Your task to perform on an android device: Install the Amazon app Image 0: 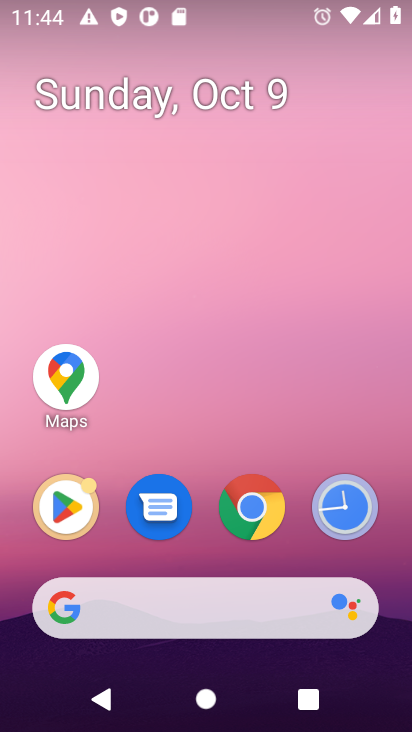
Step 0: press home button
Your task to perform on an android device: Install the Amazon app Image 1: 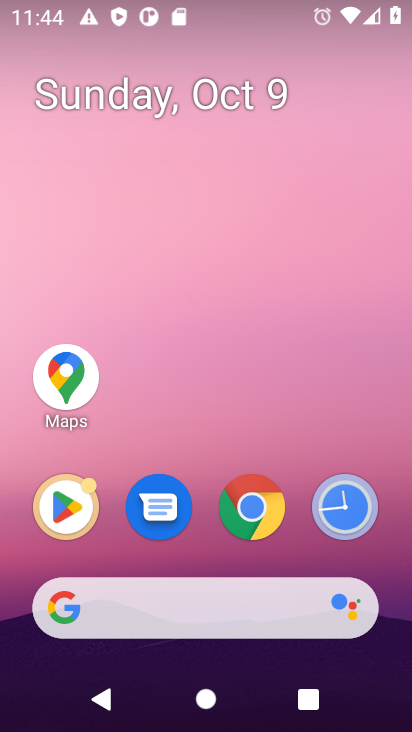
Step 1: drag from (396, 467) to (375, 80)
Your task to perform on an android device: Install the Amazon app Image 2: 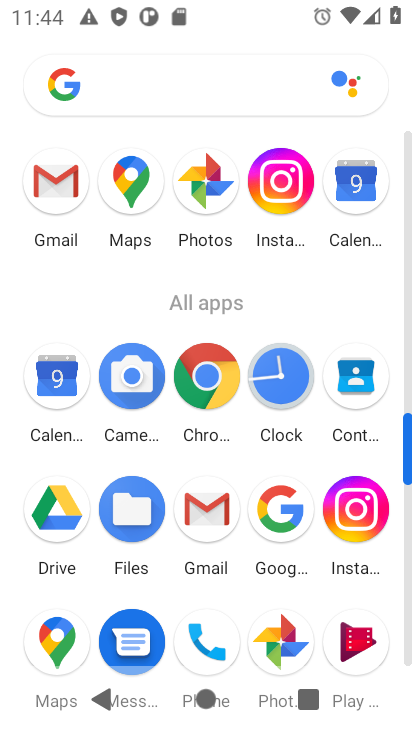
Step 2: drag from (388, 599) to (391, 164)
Your task to perform on an android device: Install the Amazon app Image 3: 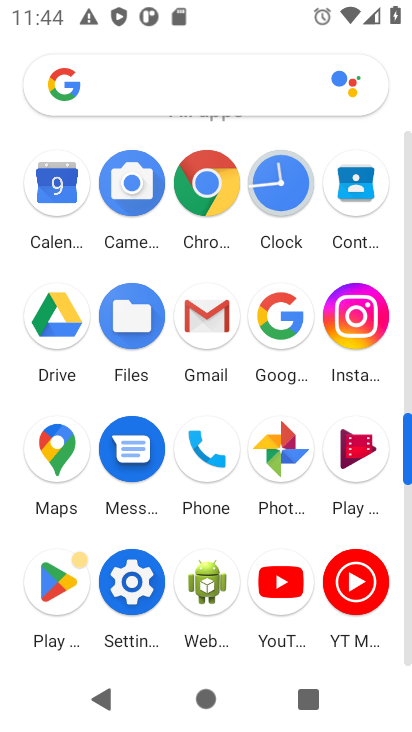
Step 3: click (62, 588)
Your task to perform on an android device: Install the Amazon app Image 4: 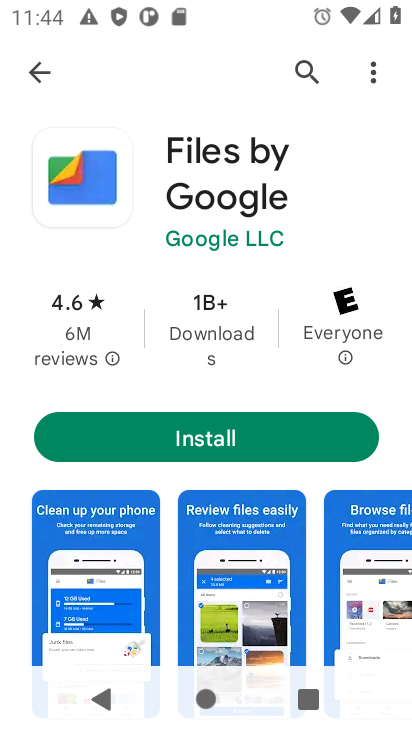
Step 4: press back button
Your task to perform on an android device: Install the Amazon app Image 5: 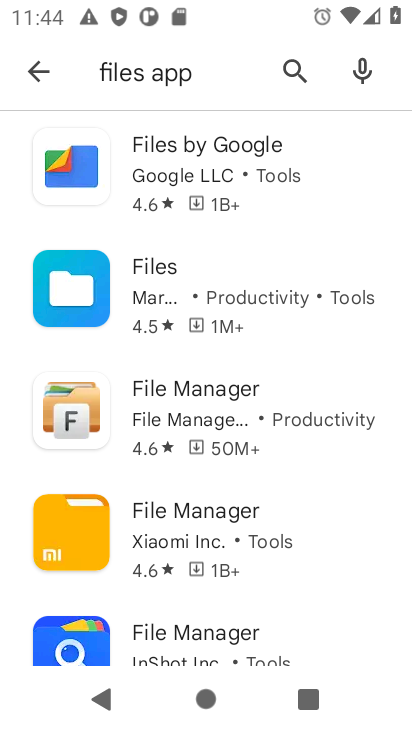
Step 5: click (291, 68)
Your task to perform on an android device: Install the Amazon app Image 6: 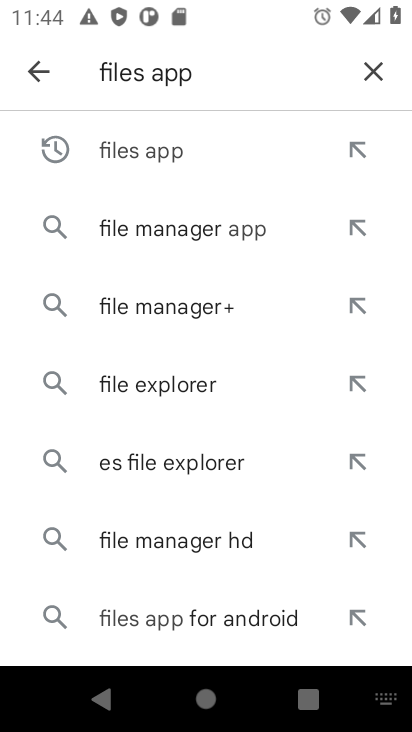
Step 6: click (359, 73)
Your task to perform on an android device: Install the Amazon app Image 7: 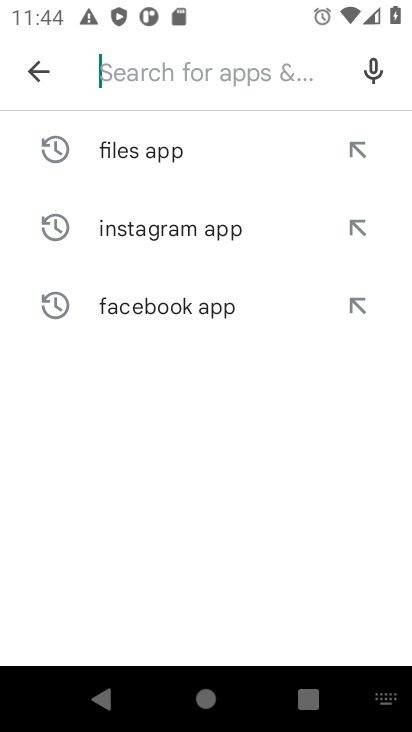
Step 7: type ""
Your task to perform on an android device: Install the Amazon app Image 8: 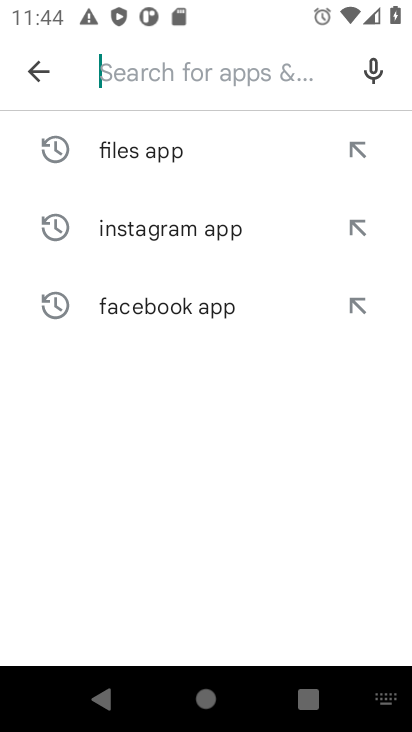
Step 8: press enter
Your task to perform on an android device: Install the Amazon app Image 9: 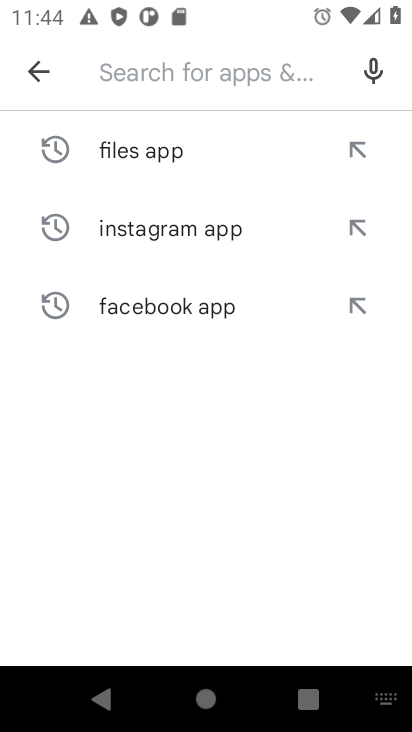
Step 9: type "amazon app"
Your task to perform on an android device: Install the Amazon app Image 10: 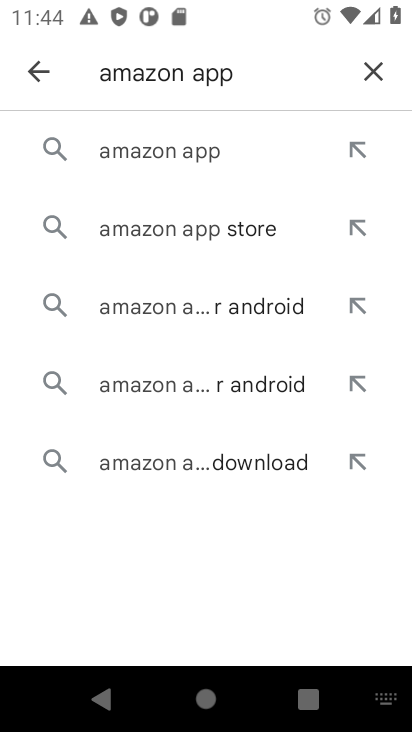
Step 10: click (224, 160)
Your task to perform on an android device: Install the Amazon app Image 11: 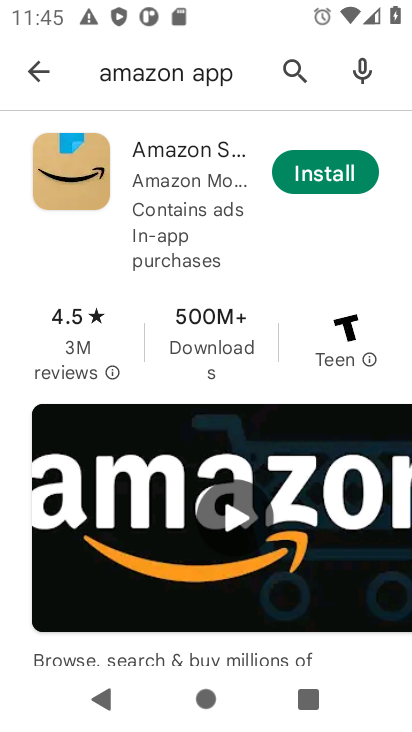
Step 11: click (365, 170)
Your task to perform on an android device: Install the Amazon app Image 12: 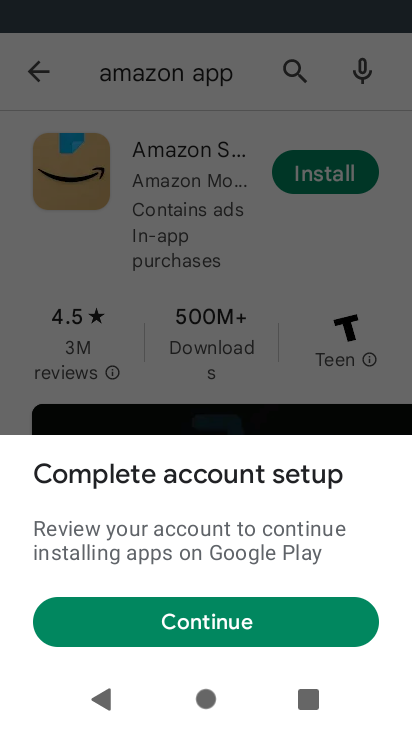
Step 12: click (236, 609)
Your task to perform on an android device: Install the Amazon app Image 13: 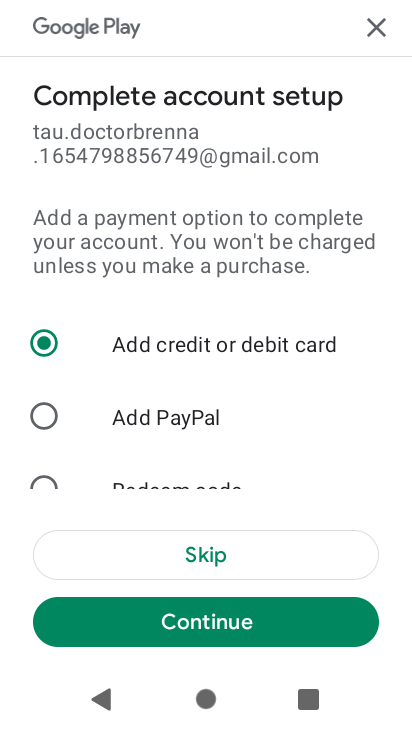
Step 13: click (220, 547)
Your task to perform on an android device: Install the Amazon app Image 14: 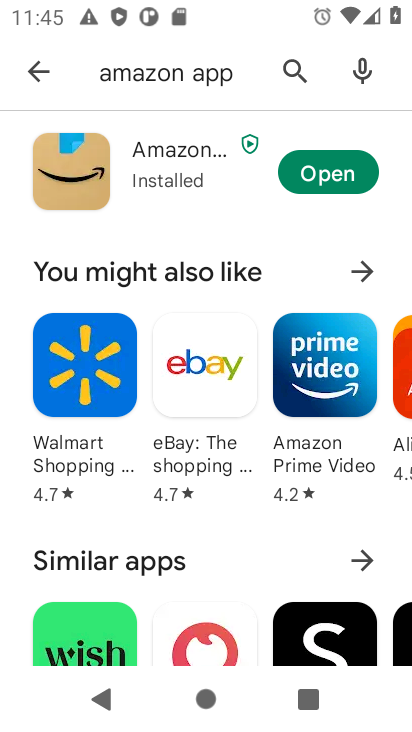
Step 14: task complete